Your task to perform on an android device: toggle pop-ups in chrome Image 0: 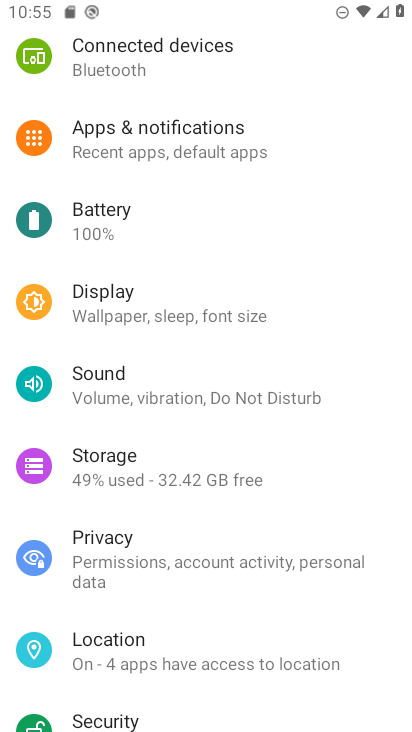
Step 0: press home button
Your task to perform on an android device: toggle pop-ups in chrome Image 1: 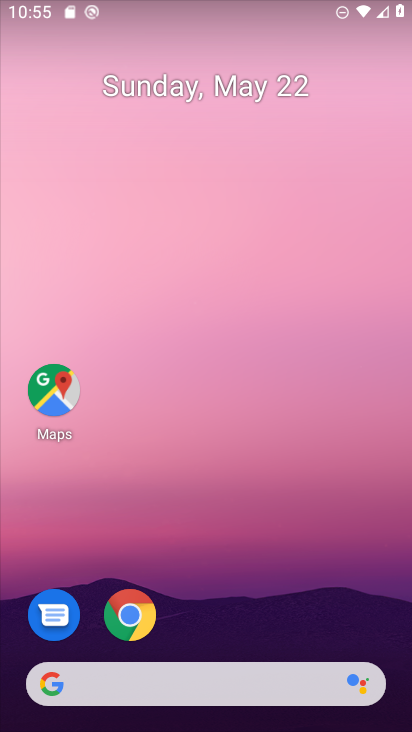
Step 1: click (126, 617)
Your task to perform on an android device: toggle pop-ups in chrome Image 2: 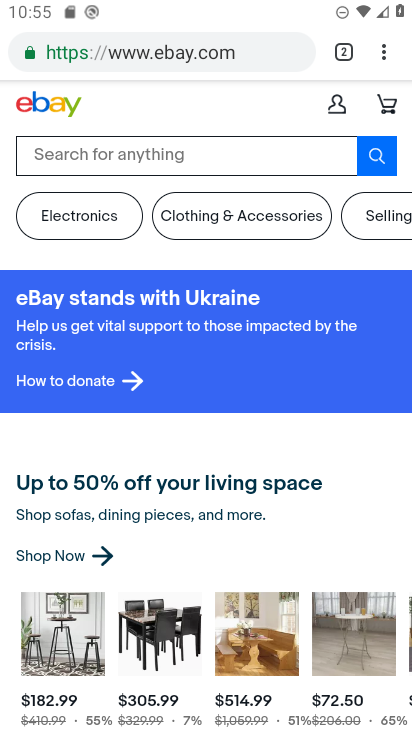
Step 2: drag from (387, 44) to (216, 585)
Your task to perform on an android device: toggle pop-ups in chrome Image 3: 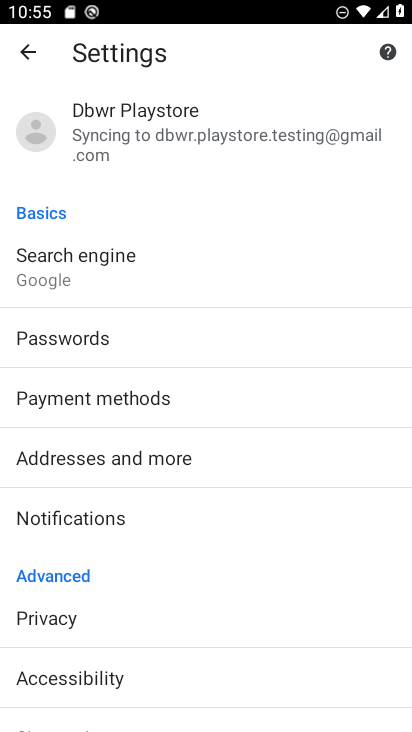
Step 3: drag from (162, 533) to (195, 79)
Your task to perform on an android device: toggle pop-ups in chrome Image 4: 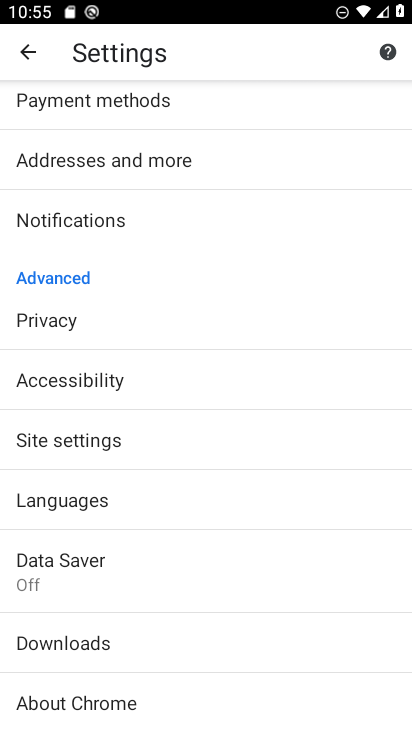
Step 4: click (79, 441)
Your task to perform on an android device: toggle pop-ups in chrome Image 5: 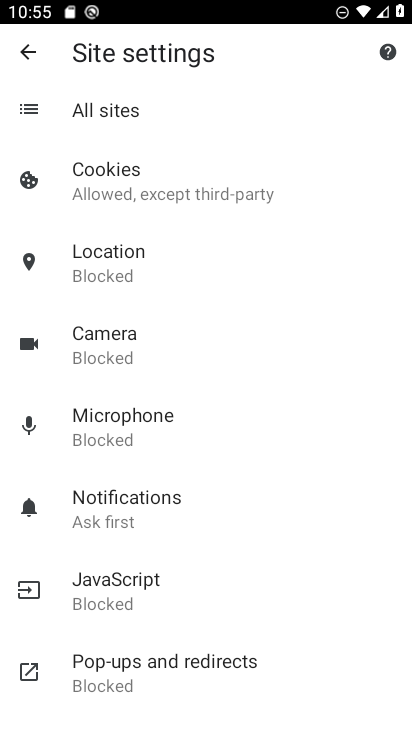
Step 5: click (200, 643)
Your task to perform on an android device: toggle pop-ups in chrome Image 6: 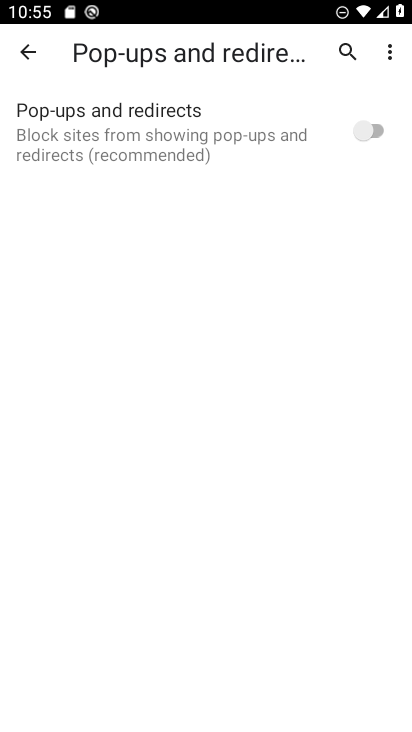
Step 6: click (366, 122)
Your task to perform on an android device: toggle pop-ups in chrome Image 7: 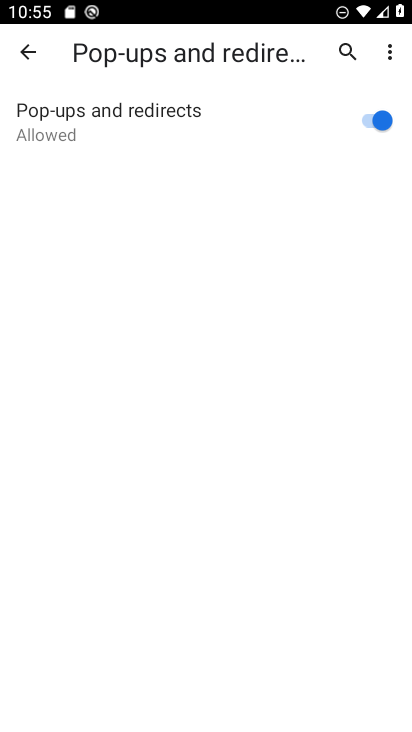
Step 7: task complete